Your task to perform on an android device: add a contact Image 0: 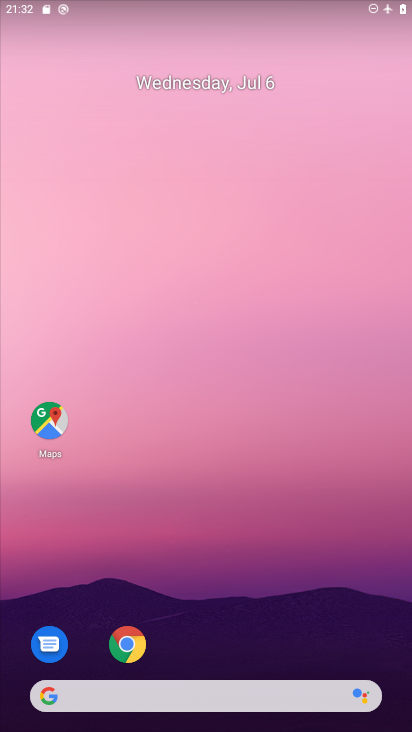
Step 0: drag from (202, 626) to (215, 152)
Your task to perform on an android device: add a contact Image 1: 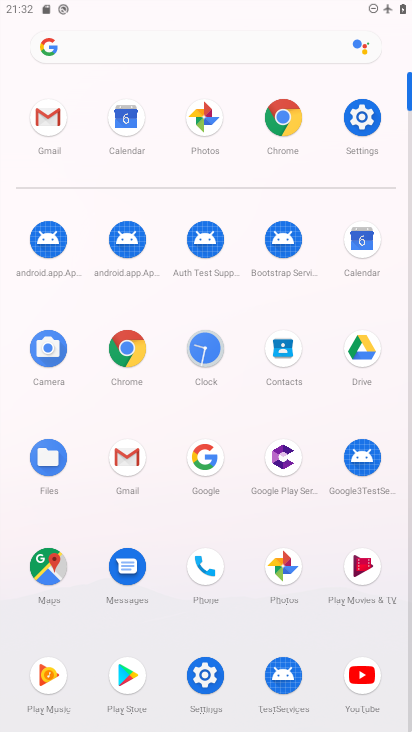
Step 1: click (286, 343)
Your task to perform on an android device: add a contact Image 2: 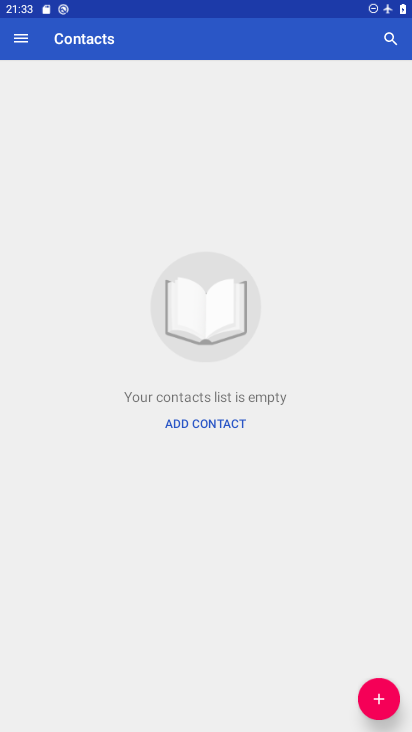
Step 2: click (371, 702)
Your task to perform on an android device: add a contact Image 3: 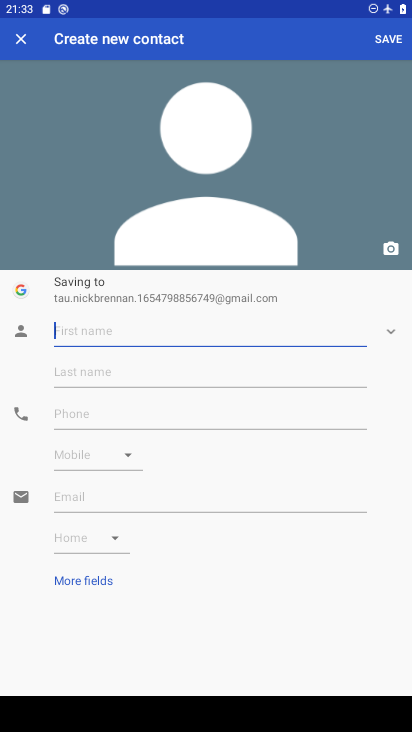
Step 3: type "hvuj"
Your task to perform on an android device: add a contact Image 4: 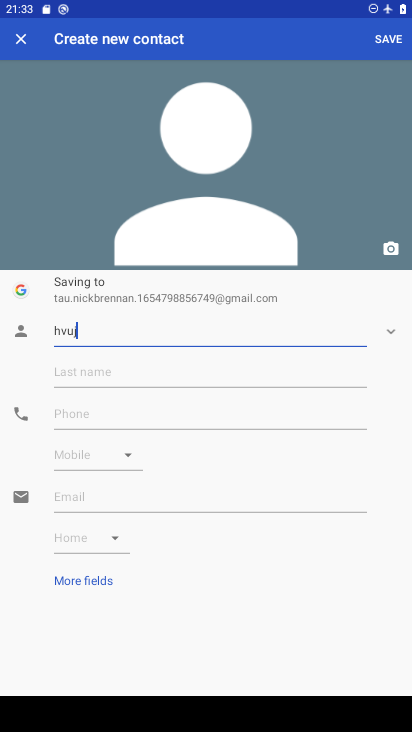
Step 4: click (192, 412)
Your task to perform on an android device: add a contact Image 5: 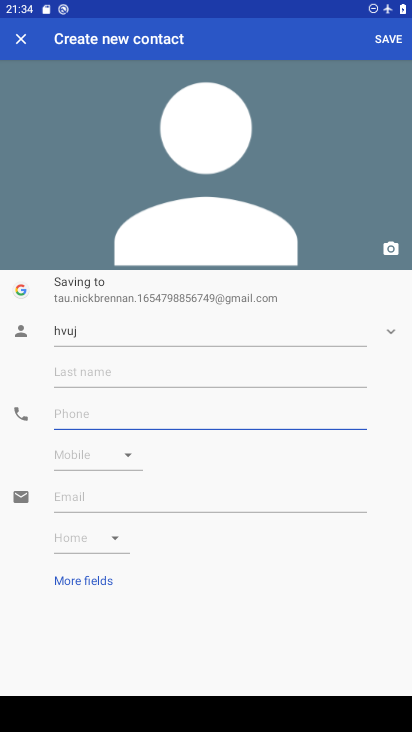
Step 5: type "8765748678"
Your task to perform on an android device: add a contact Image 6: 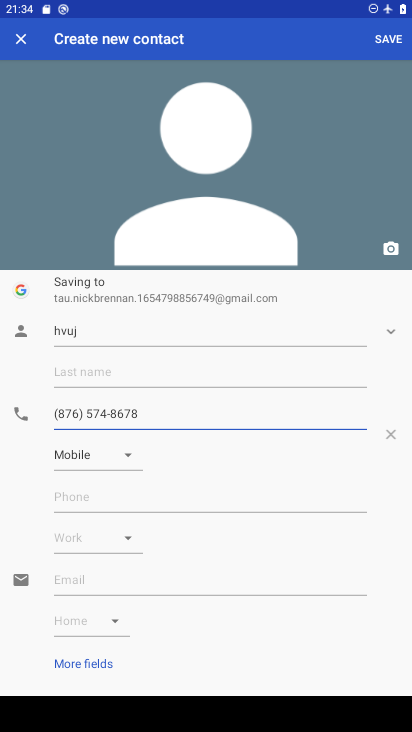
Step 6: click (383, 30)
Your task to perform on an android device: add a contact Image 7: 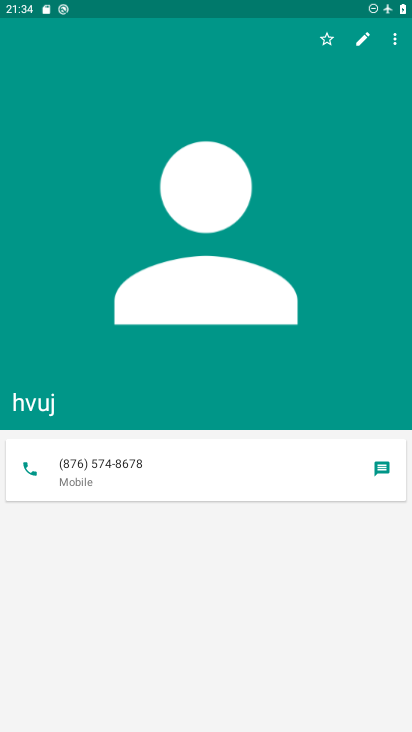
Step 7: task complete